Your task to perform on an android device: visit the assistant section in the google photos Image 0: 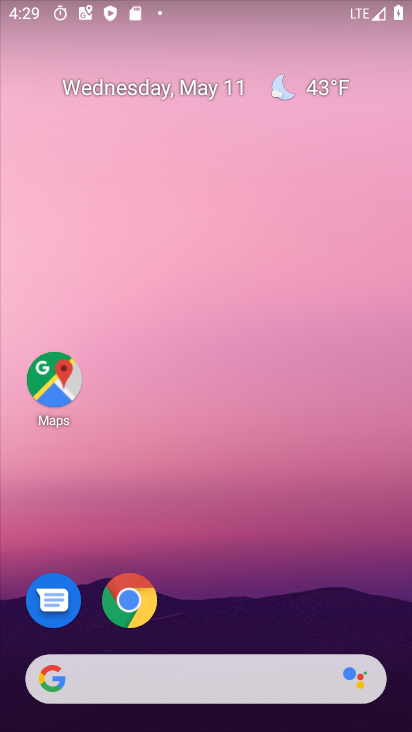
Step 0: drag from (359, 635) to (371, 9)
Your task to perform on an android device: visit the assistant section in the google photos Image 1: 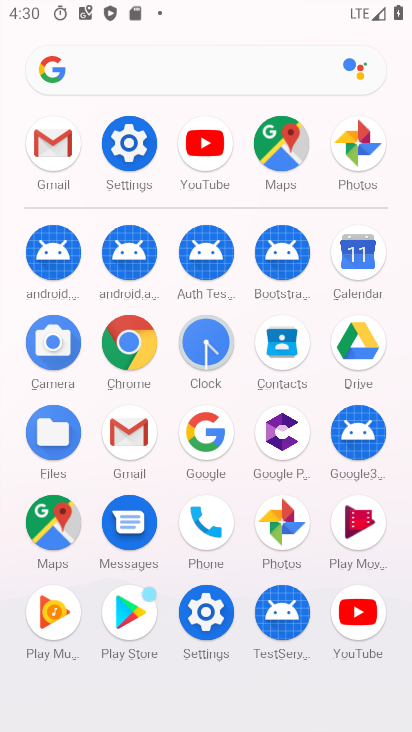
Step 1: click (292, 525)
Your task to perform on an android device: visit the assistant section in the google photos Image 2: 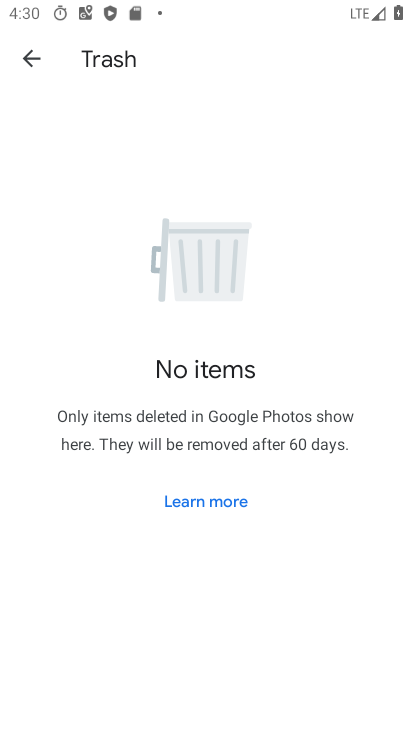
Step 2: click (26, 57)
Your task to perform on an android device: visit the assistant section in the google photos Image 3: 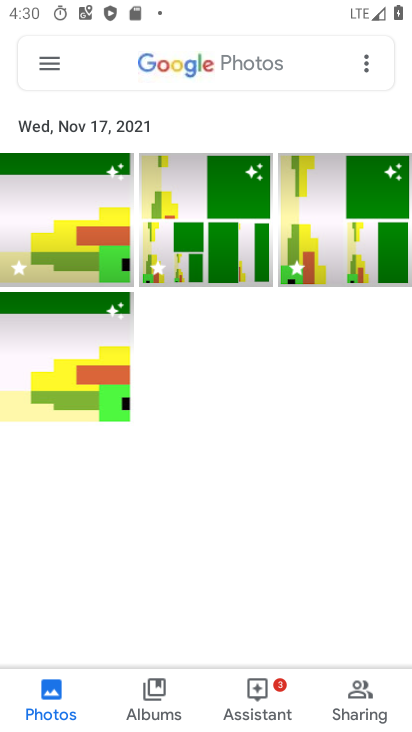
Step 3: click (266, 710)
Your task to perform on an android device: visit the assistant section in the google photos Image 4: 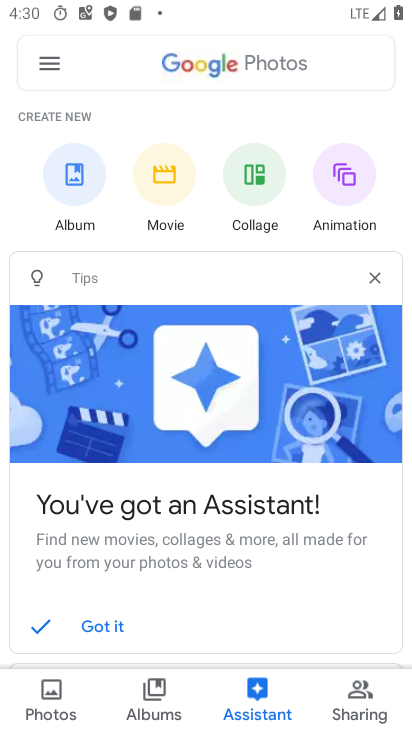
Step 4: task complete